Your task to perform on an android device: turn off location history Image 0: 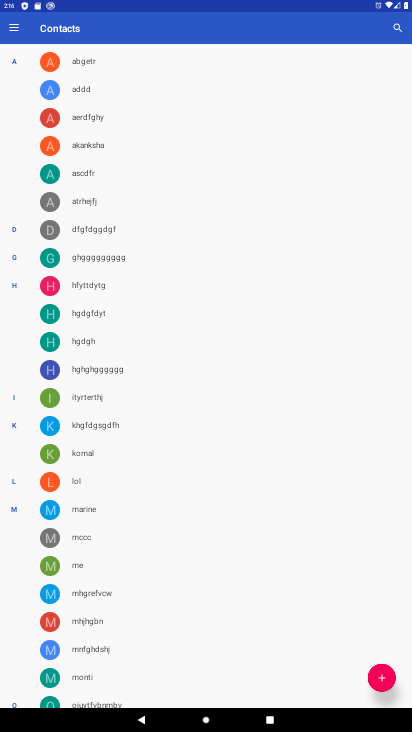
Step 0: press home button
Your task to perform on an android device: turn off location history Image 1: 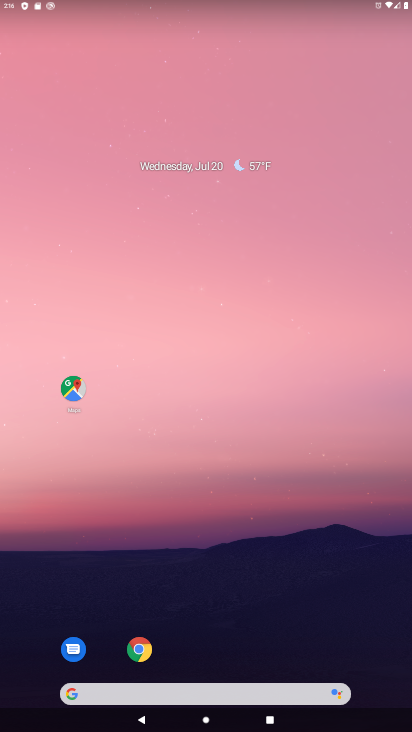
Step 1: drag from (186, 637) to (228, 38)
Your task to perform on an android device: turn off location history Image 2: 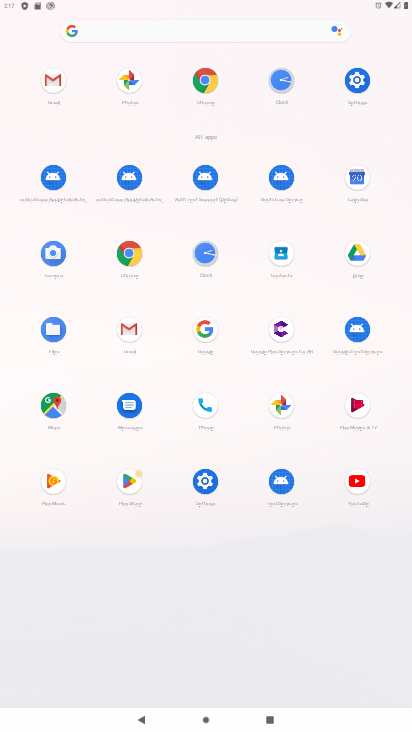
Step 2: click (354, 81)
Your task to perform on an android device: turn off location history Image 3: 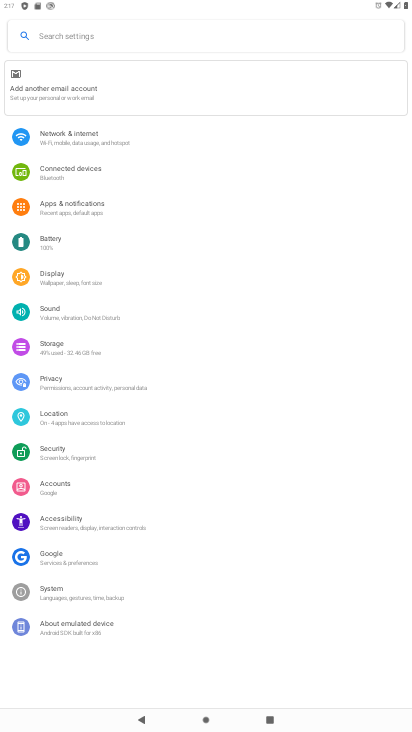
Step 3: click (52, 413)
Your task to perform on an android device: turn off location history Image 4: 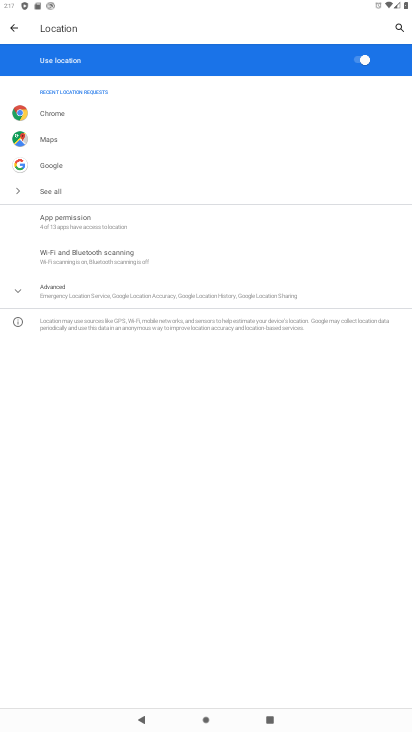
Step 4: click (361, 62)
Your task to perform on an android device: turn off location history Image 5: 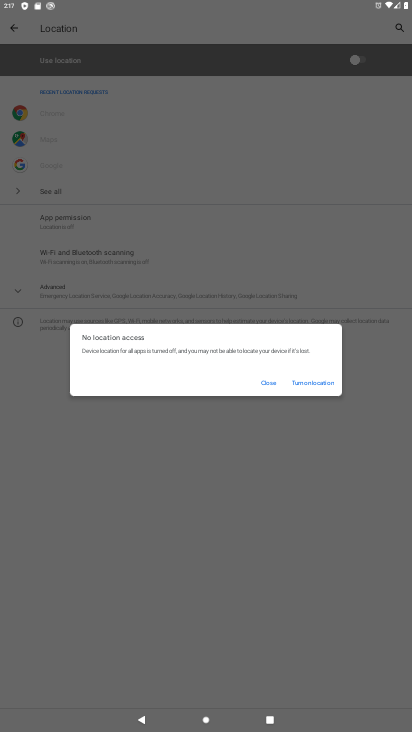
Step 5: task complete